Your task to perform on an android device: change the clock display to analog Image 0: 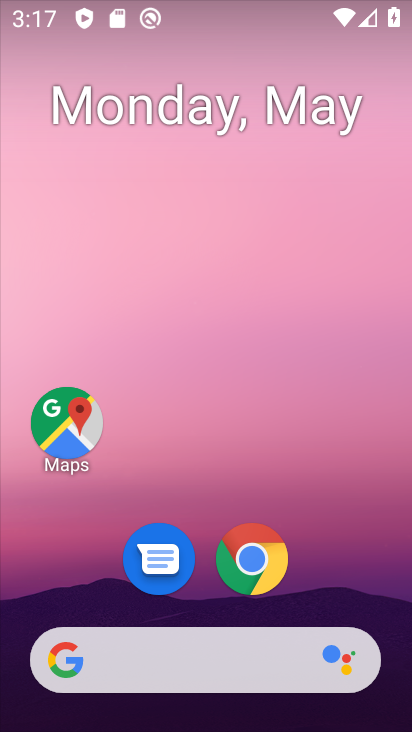
Step 0: drag from (275, 186) to (265, 115)
Your task to perform on an android device: change the clock display to analog Image 1: 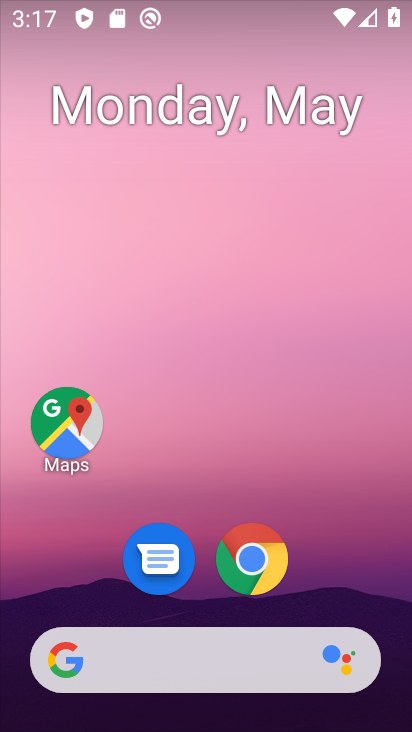
Step 1: click (170, 55)
Your task to perform on an android device: change the clock display to analog Image 2: 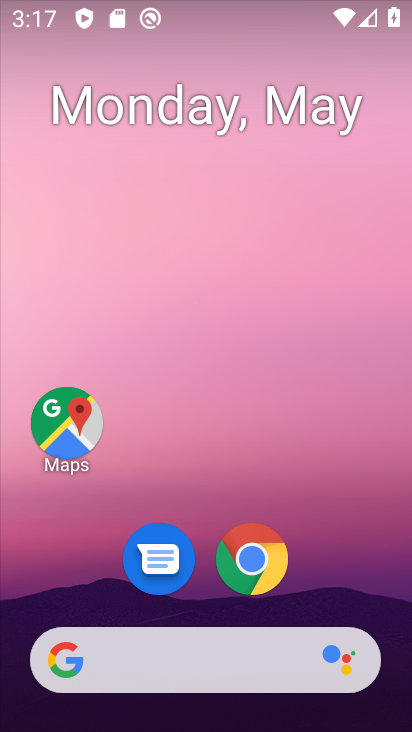
Step 2: click (100, 60)
Your task to perform on an android device: change the clock display to analog Image 3: 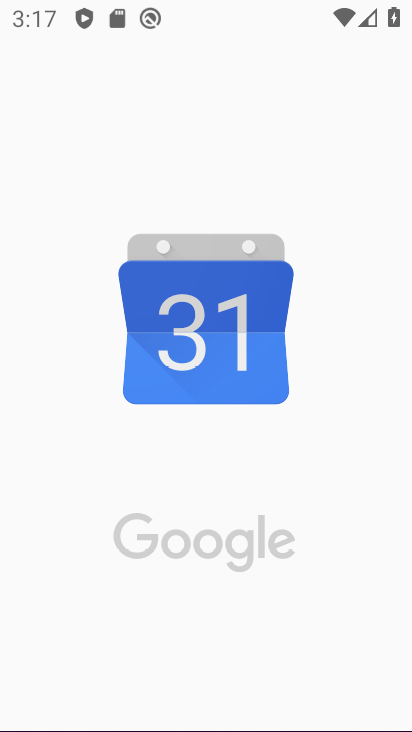
Step 3: drag from (232, 202) to (208, 42)
Your task to perform on an android device: change the clock display to analog Image 4: 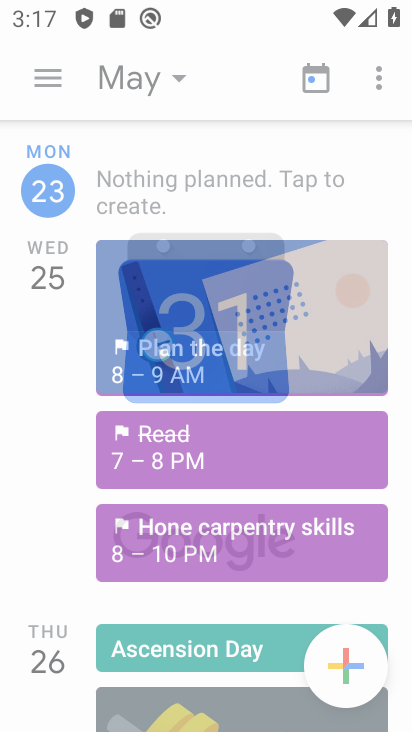
Step 4: drag from (266, 266) to (212, 76)
Your task to perform on an android device: change the clock display to analog Image 5: 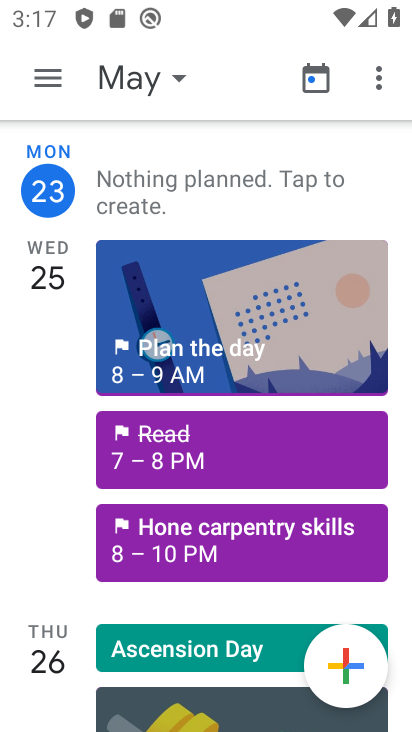
Step 5: press back button
Your task to perform on an android device: change the clock display to analog Image 6: 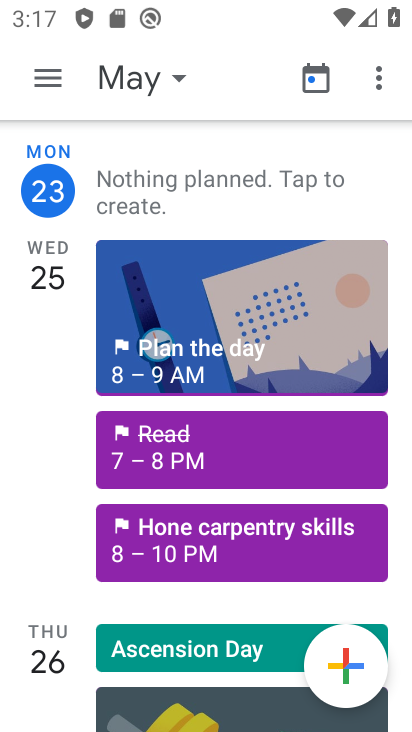
Step 6: press back button
Your task to perform on an android device: change the clock display to analog Image 7: 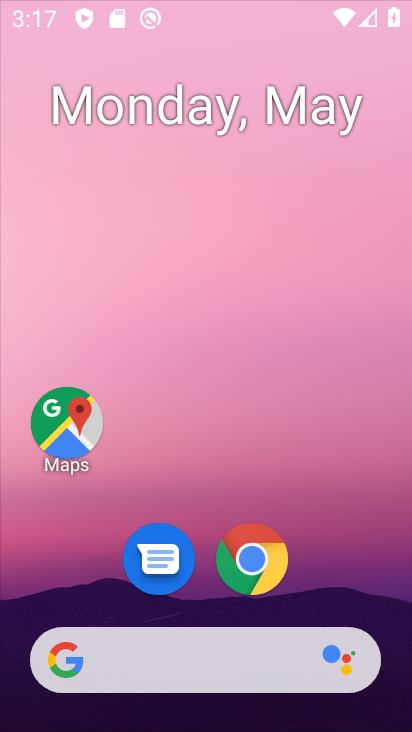
Step 7: press back button
Your task to perform on an android device: change the clock display to analog Image 8: 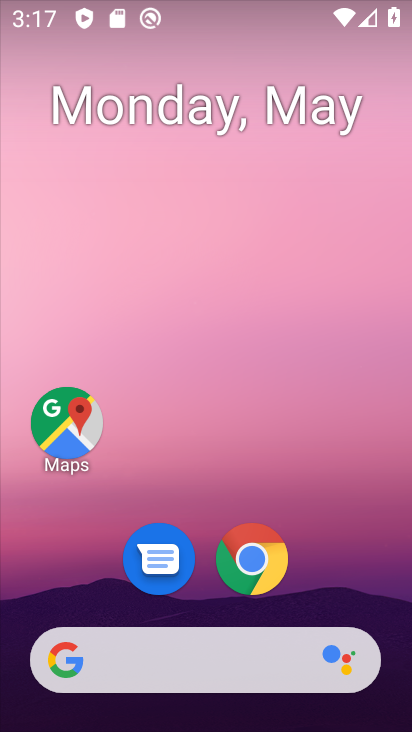
Step 8: drag from (343, 636) to (226, 54)
Your task to perform on an android device: change the clock display to analog Image 9: 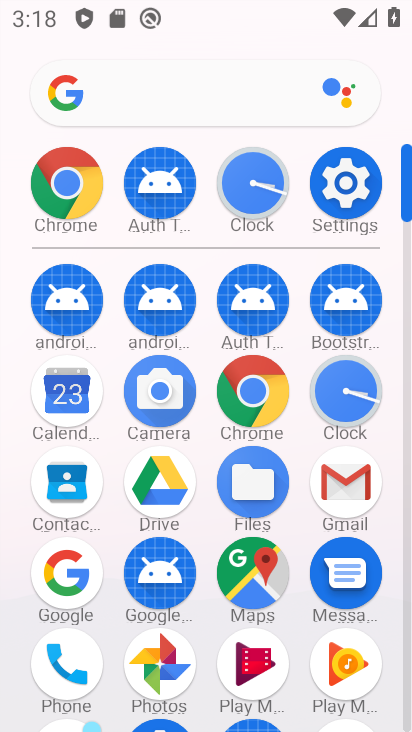
Step 9: click (324, 383)
Your task to perform on an android device: change the clock display to analog Image 10: 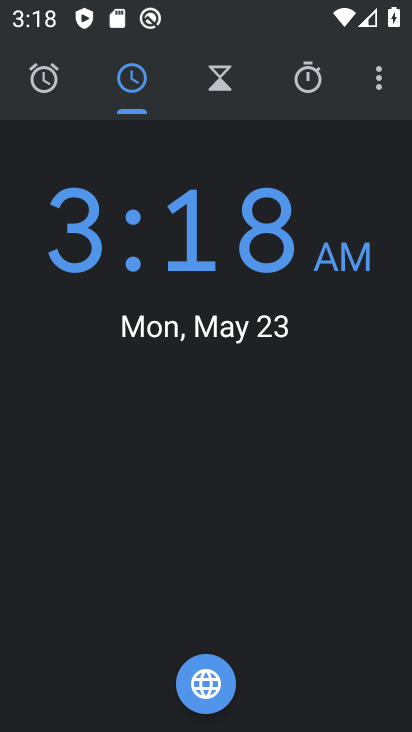
Step 10: click (378, 83)
Your task to perform on an android device: change the clock display to analog Image 11: 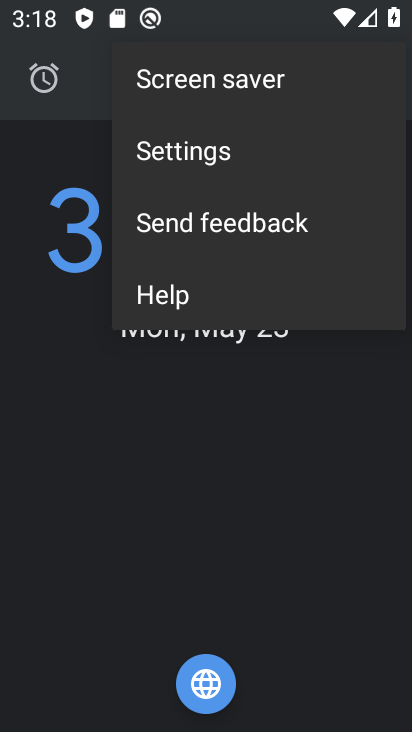
Step 11: click (190, 147)
Your task to perform on an android device: change the clock display to analog Image 12: 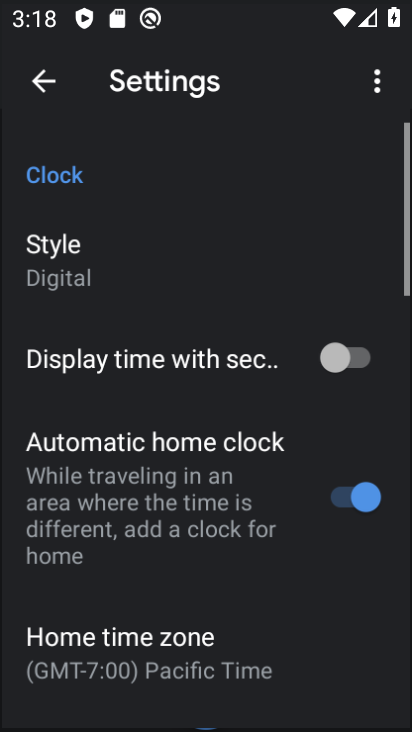
Step 12: click (190, 147)
Your task to perform on an android device: change the clock display to analog Image 13: 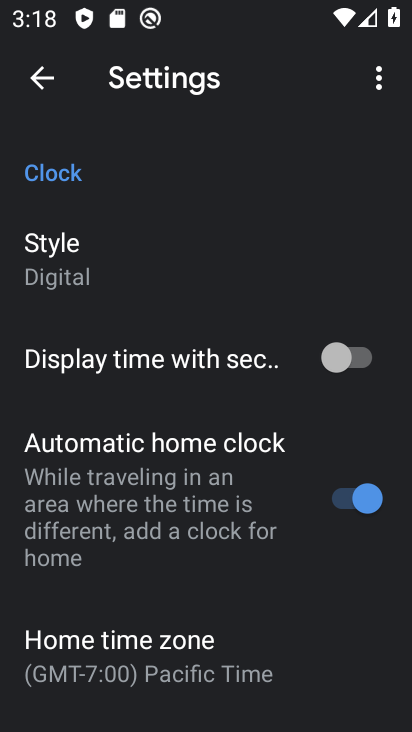
Step 13: click (131, 247)
Your task to perform on an android device: change the clock display to analog Image 14: 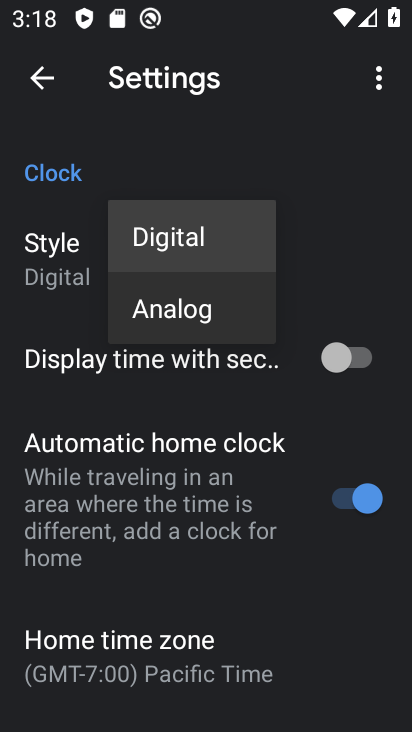
Step 14: click (167, 304)
Your task to perform on an android device: change the clock display to analog Image 15: 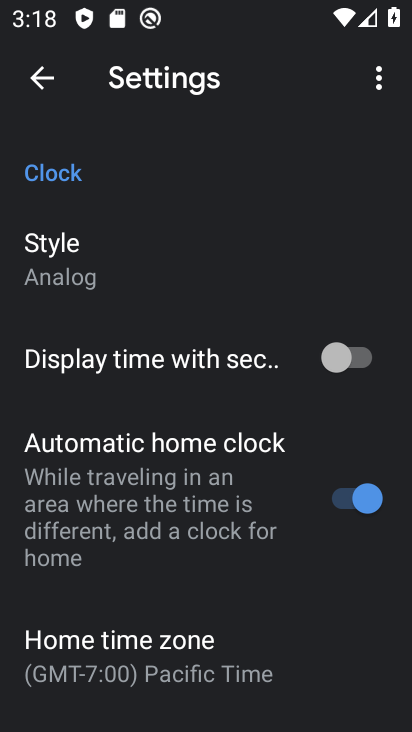
Step 15: task complete